Your task to perform on an android device: empty trash in the gmail app Image 0: 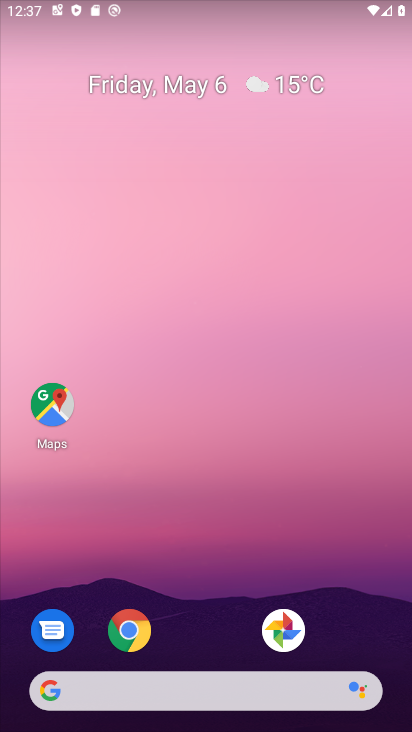
Step 0: drag from (345, 585) to (286, 34)
Your task to perform on an android device: empty trash in the gmail app Image 1: 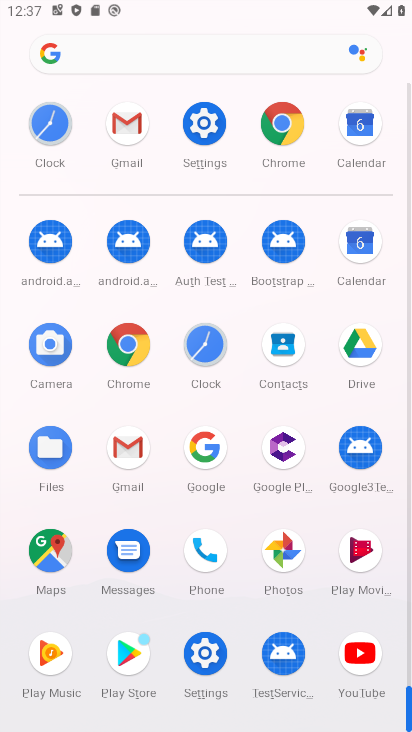
Step 1: click (112, 449)
Your task to perform on an android device: empty trash in the gmail app Image 2: 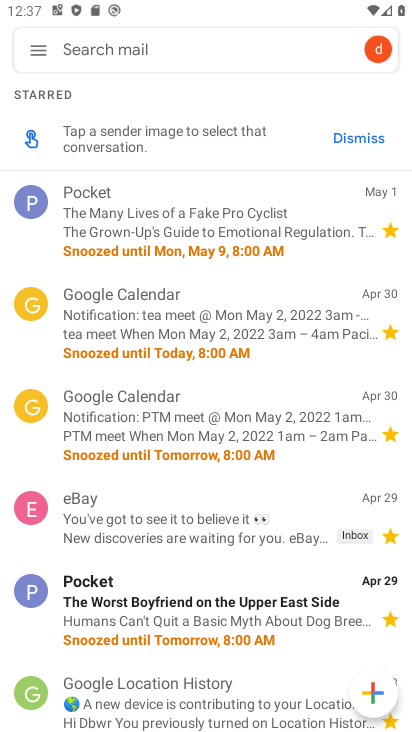
Step 2: click (32, 42)
Your task to perform on an android device: empty trash in the gmail app Image 3: 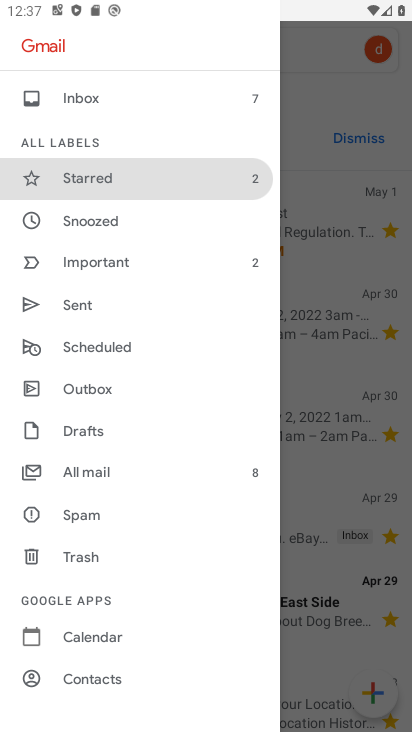
Step 3: click (110, 556)
Your task to perform on an android device: empty trash in the gmail app Image 4: 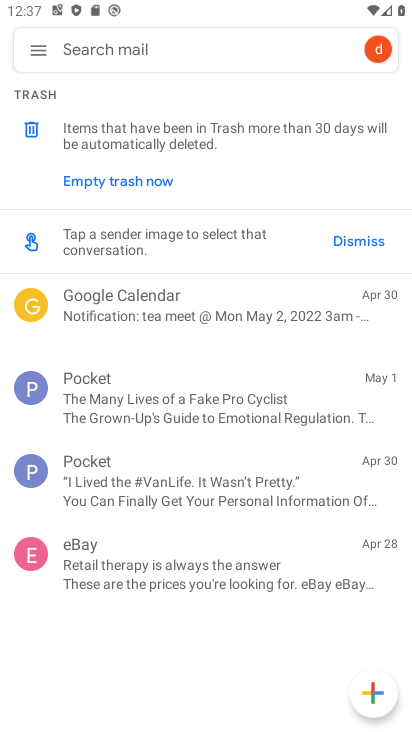
Step 4: click (239, 313)
Your task to perform on an android device: empty trash in the gmail app Image 5: 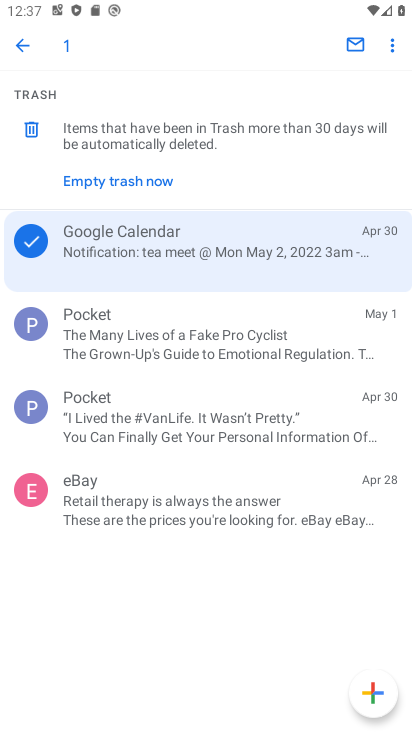
Step 5: click (247, 345)
Your task to perform on an android device: empty trash in the gmail app Image 6: 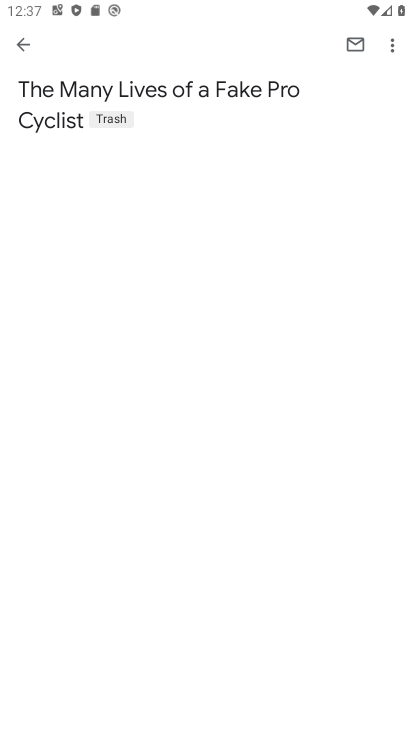
Step 6: click (254, 427)
Your task to perform on an android device: empty trash in the gmail app Image 7: 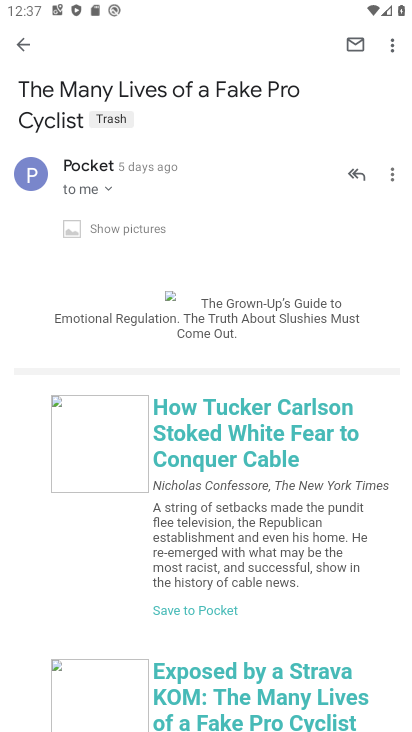
Step 7: click (33, 52)
Your task to perform on an android device: empty trash in the gmail app Image 8: 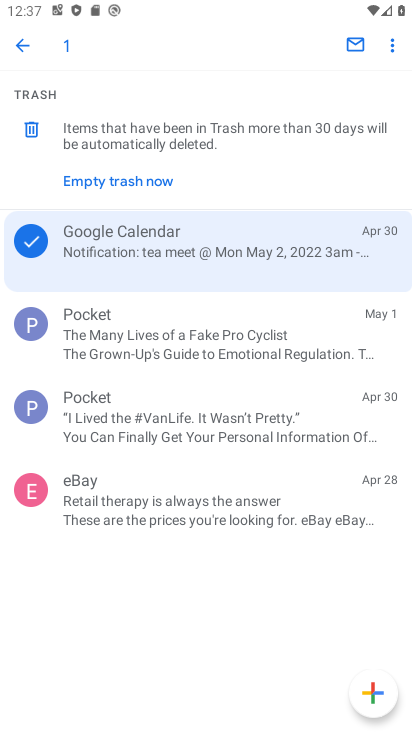
Step 8: click (145, 340)
Your task to perform on an android device: empty trash in the gmail app Image 9: 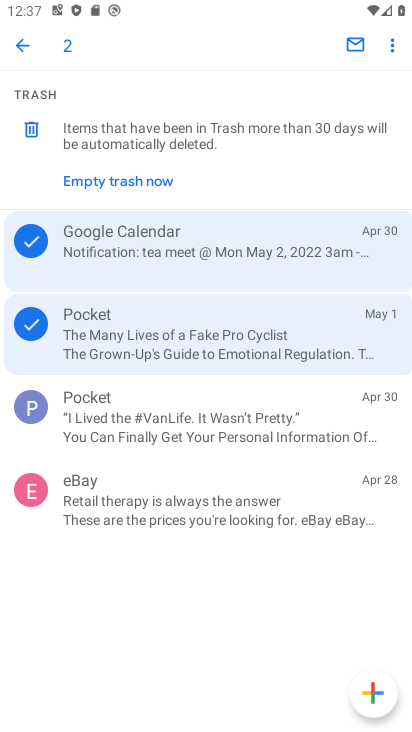
Step 9: click (135, 409)
Your task to perform on an android device: empty trash in the gmail app Image 10: 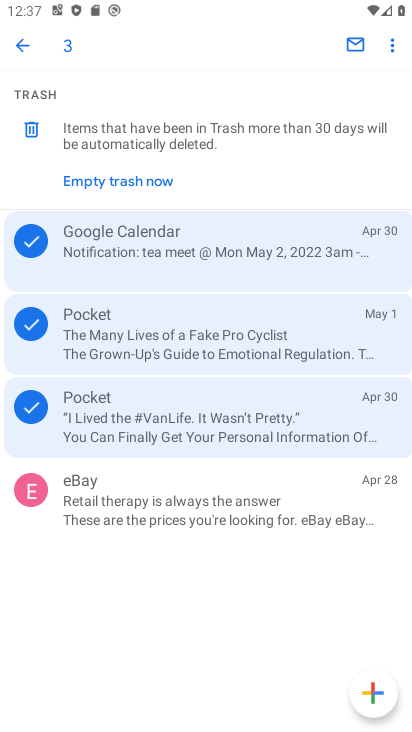
Step 10: click (142, 529)
Your task to perform on an android device: empty trash in the gmail app Image 11: 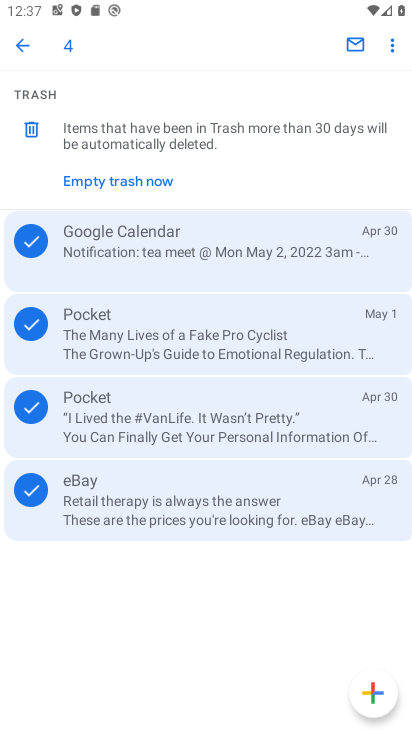
Step 11: click (93, 190)
Your task to perform on an android device: empty trash in the gmail app Image 12: 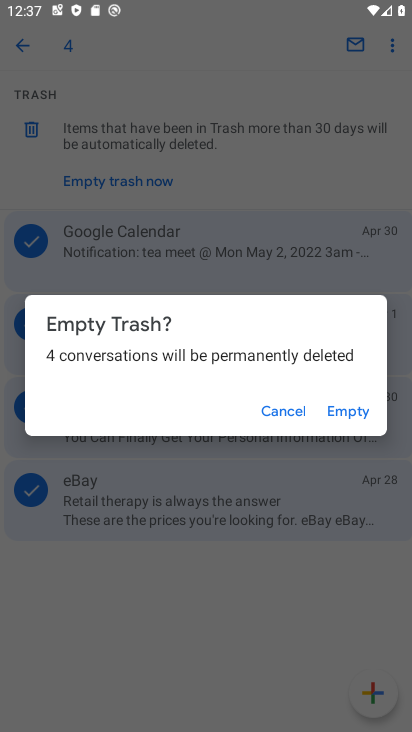
Step 12: click (344, 395)
Your task to perform on an android device: empty trash in the gmail app Image 13: 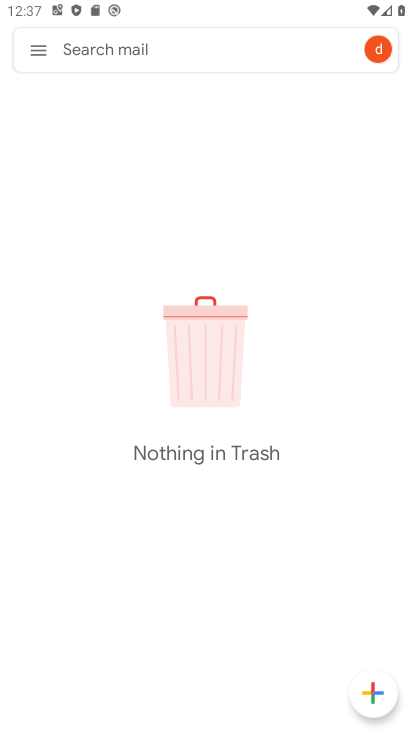
Step 13: task complete